Your task to perform on an android device: Do I have any events today? Image 0: 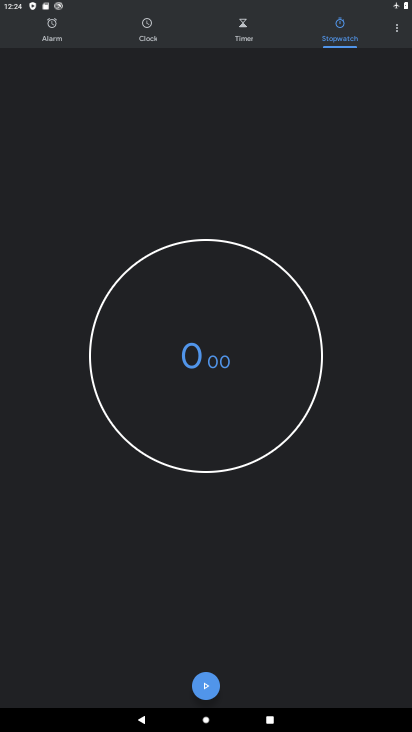
Step 0: press home button
Your task to perform on an android device: Do I have any events today? Image 1: 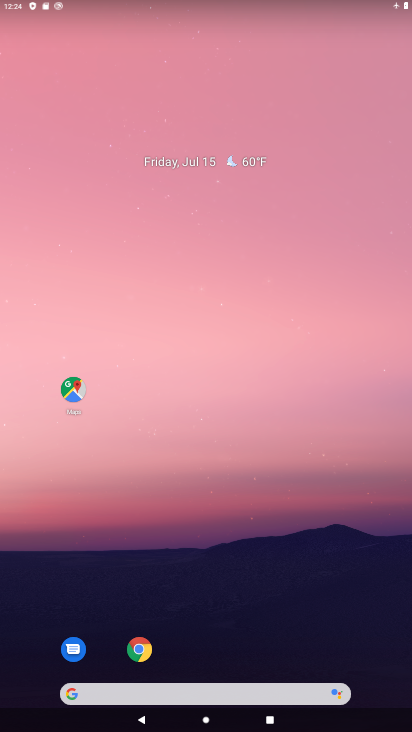
Step 1: drag from (190, 577) to (180, 85)
Your task to perform on an android device: Do I have any events today? Image 2: 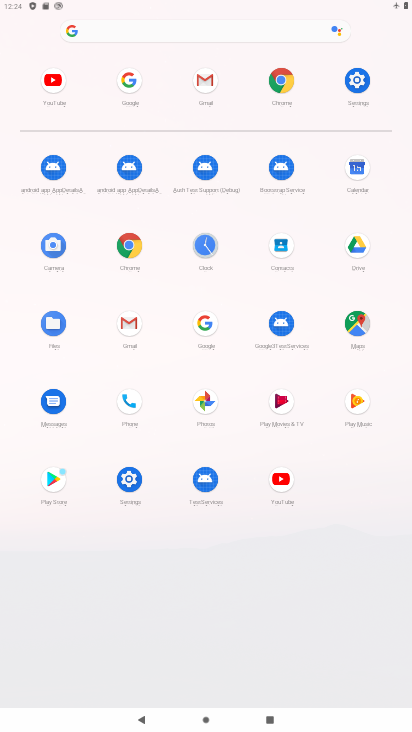
Step 2: click (354, 172)
Your task to perform on an android device: Do I have any events today? Image 3: 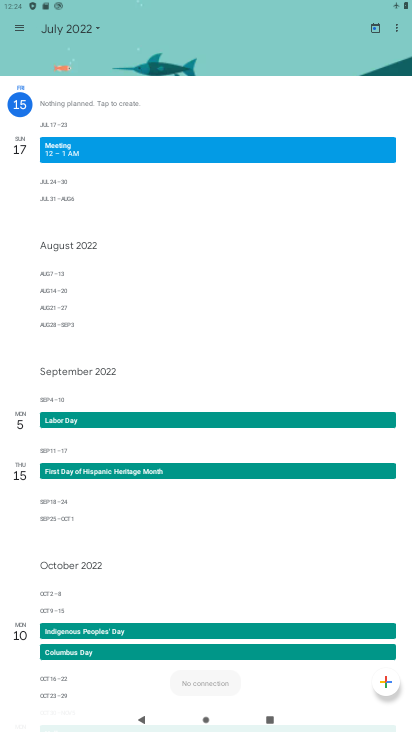
Step 3: task complete